Your task to perform on an android device: all mails in gmail Image 0: 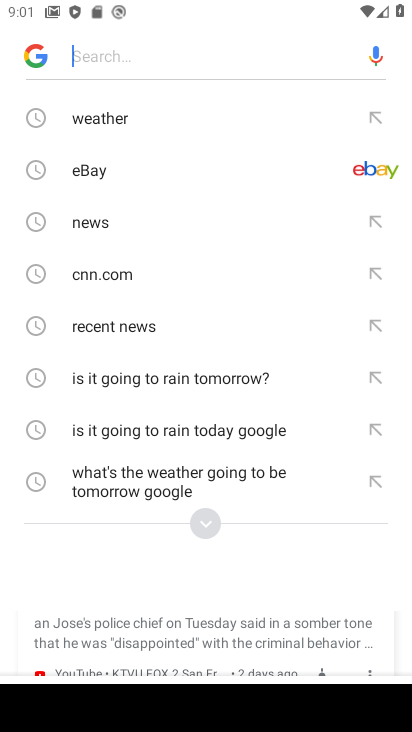
Step 0: press home button
Your task to perform on an android device: all mails in gmail Image 1: 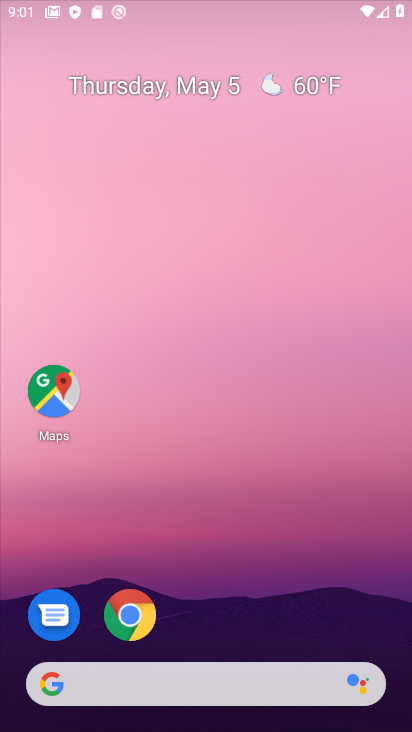
Step 1: drag from (213, 599) to (273, 86)
Your task to perform on an android device: all mails in gmail Image 2: 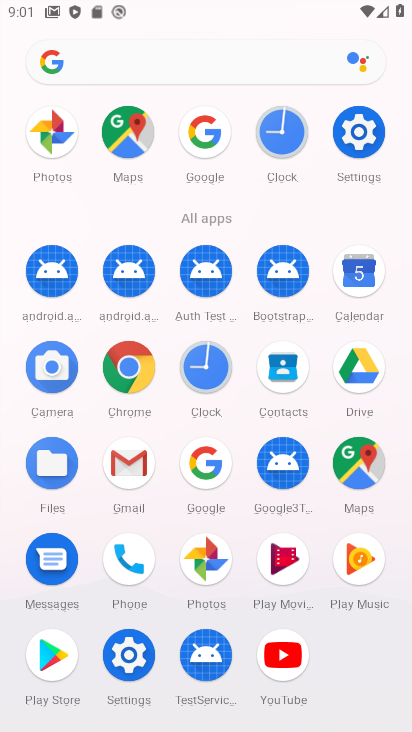
Step 2: click (128, 457)
Your task to perform on an android device: all mails in gmail Image 3: 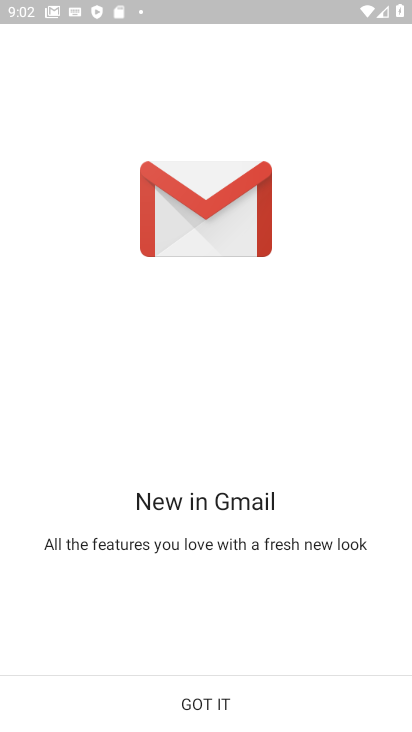
Step 3: click (209, 700)
Your task to perform on an android device: all mails in gmail Image 4: 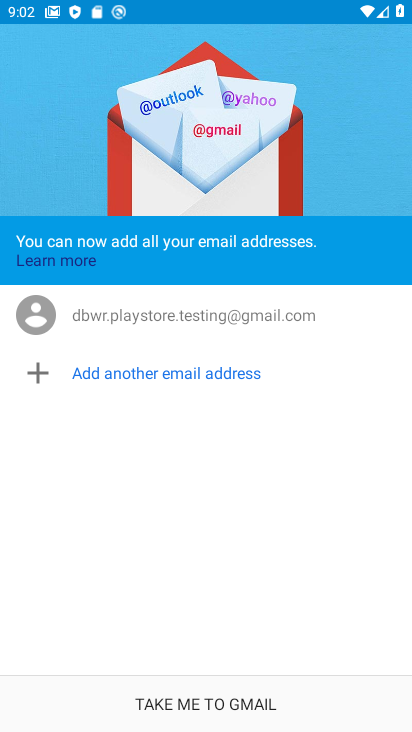
Step 4: click (205, 700)
Your task to perform on an android device: all mails in gmail Image 5: 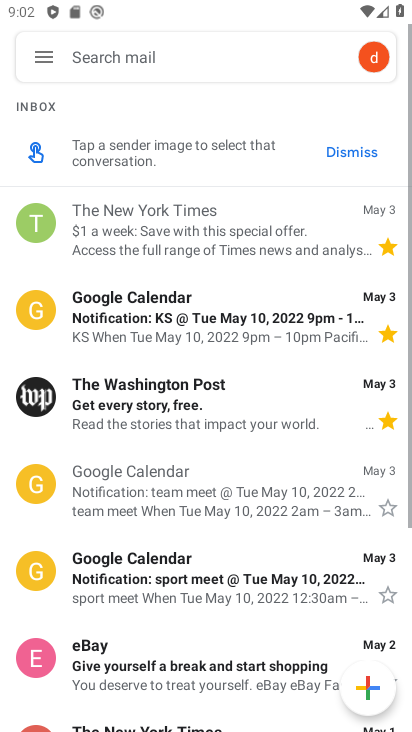
Step 5: click (36, 60)
Your task to perform on an android device: all mails in gmail Image 6: 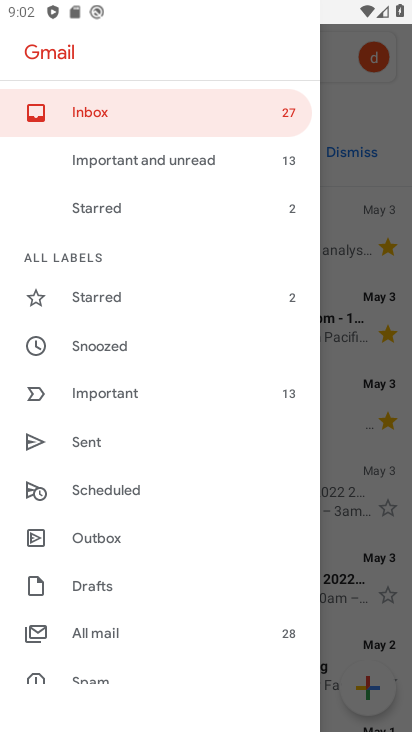
Step 6: click (101, 627)
Your task to perform on an android device: all mails in gmail Image 7: 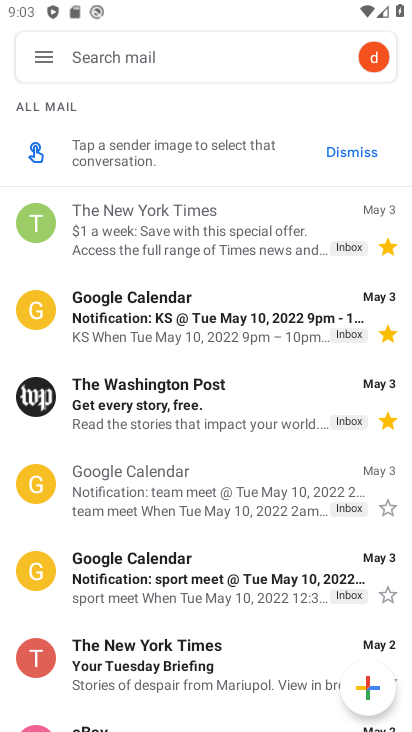
Step 7: task complete